Your task to perform on an android device: Open my contact list Image 0: 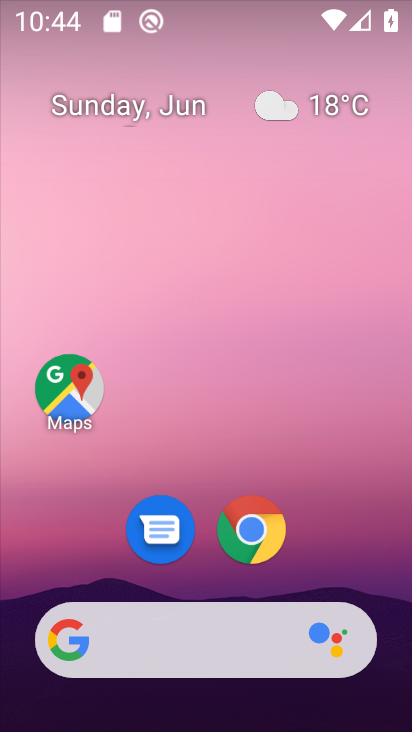
Step 0: drag from (124, 588) to (222, 125)
Your task to perform on an android device: Open my contact list Image 1: 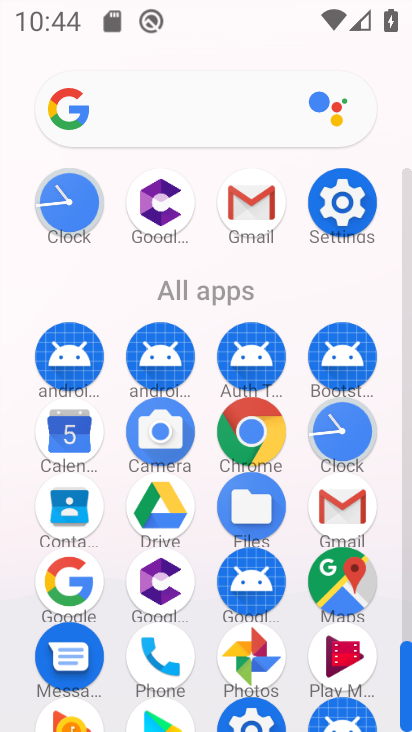
Step 1: click (77, 511)
Your task to perform on an android device: Open my contact list Image 2: 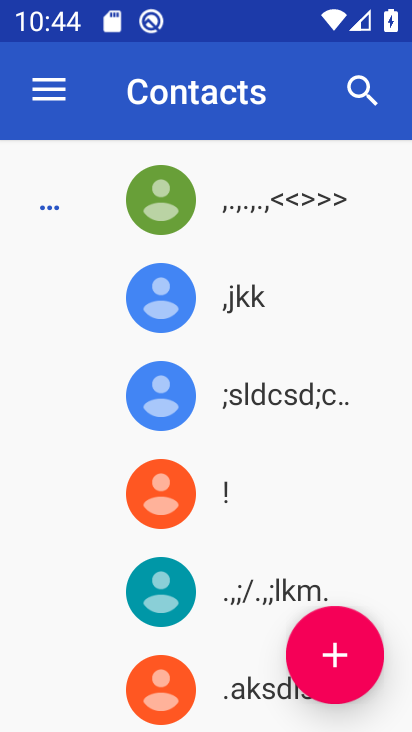
Step 2: task complete